Your task to perform on an android device: Search for pizza restaurants on Maps Image 0: 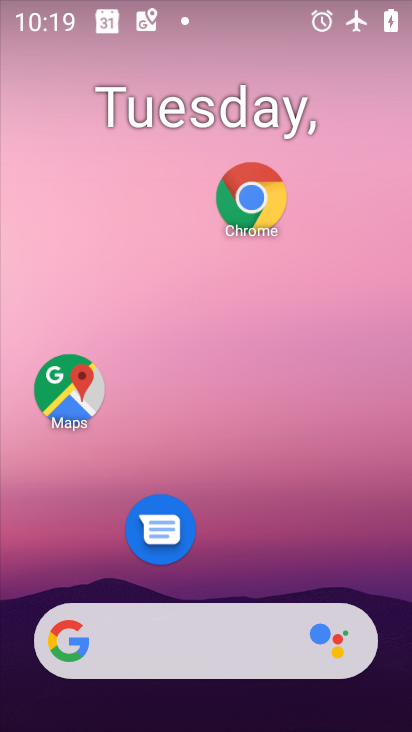
Step 0: click (87, 417)
Your task to perform on an android device: Search for pizza restaurants on Maps Image 1: 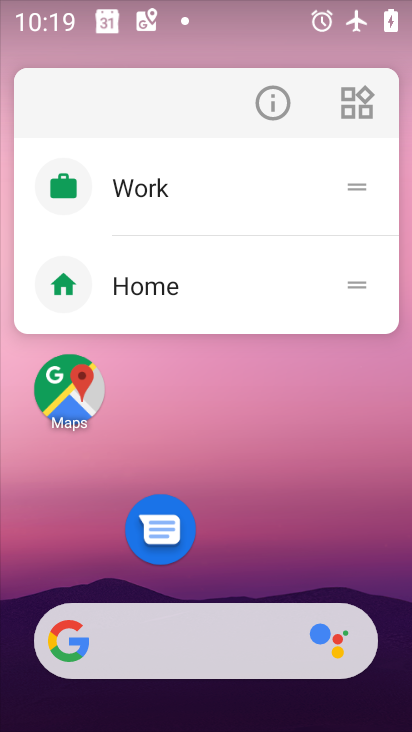
Step 1: click (63, 389)
Your task to perform on an android device: Search for pizza restaurants on Maps Image 2: 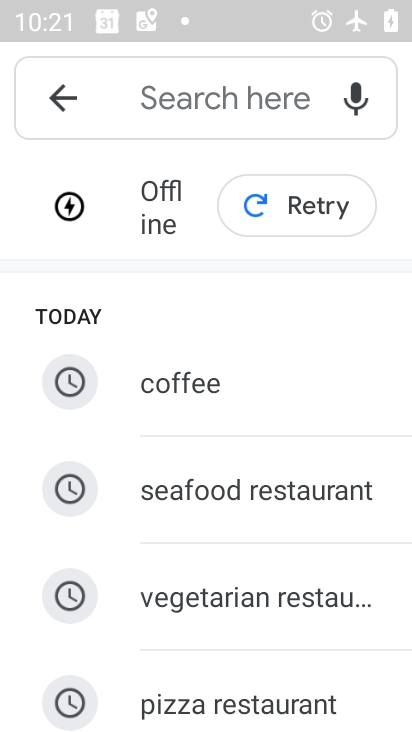
Step 2: click (207, 687)
Your task to perform on an android device: Search for pizza restaurants on Maps Image 3: 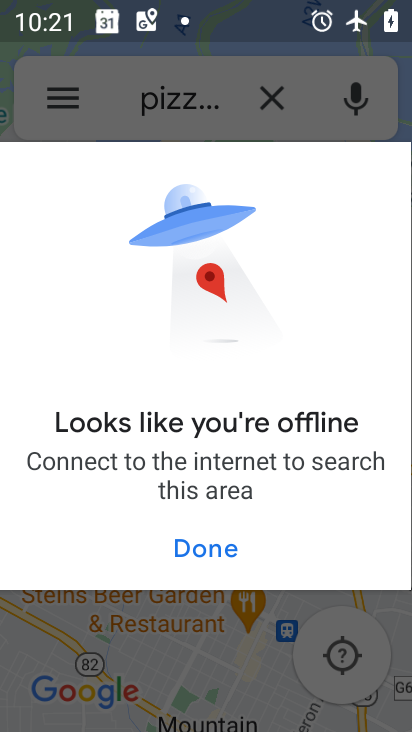
Step 3: task complete